Your task to perform on an android device: Show me the alarms in the clock app Image 0: 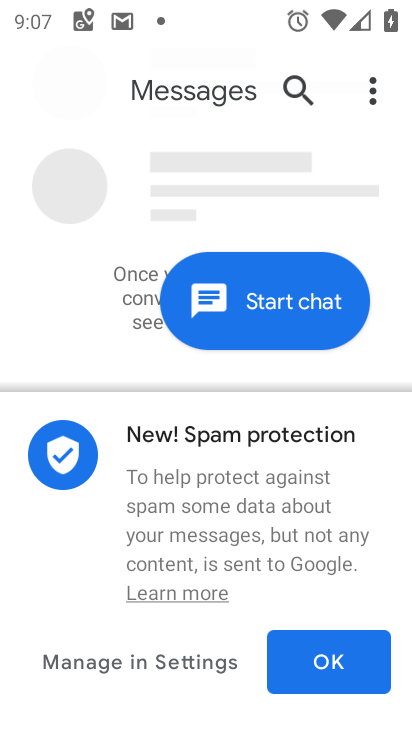
Step 0: press home button
Your task to perform on an android device: Show me the alarms in the clock app Image 1: 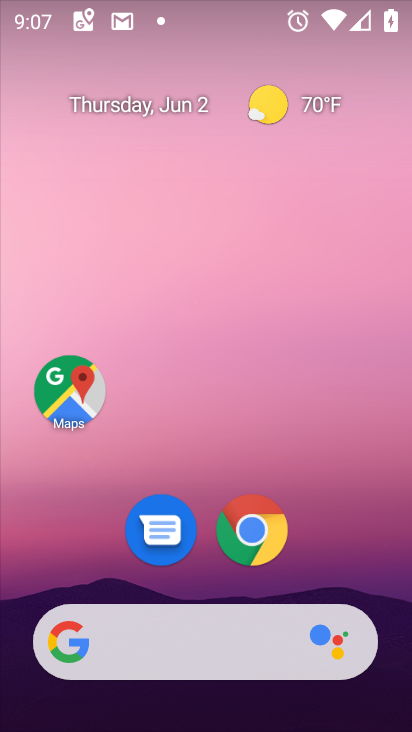
Step 1: drag from (142, 591) to (120, 328)
Your task to perform on an android device: Show me the alarms in the clock app Image 2: 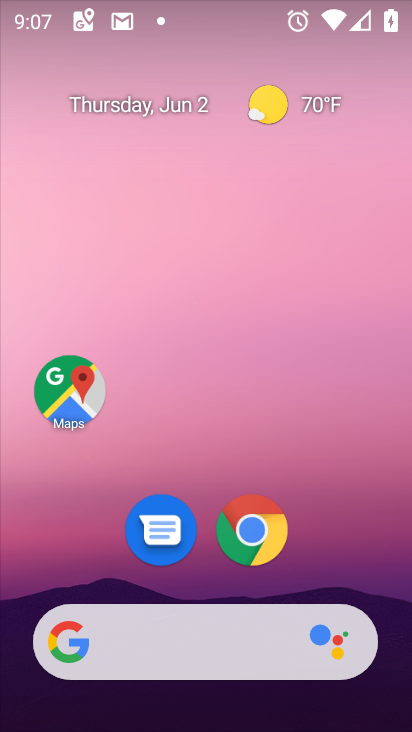
Step 2: drag from (203, 579) to (173, 311)
Your task to perform on an android device: Show me the alarms in the clock app Image 3: 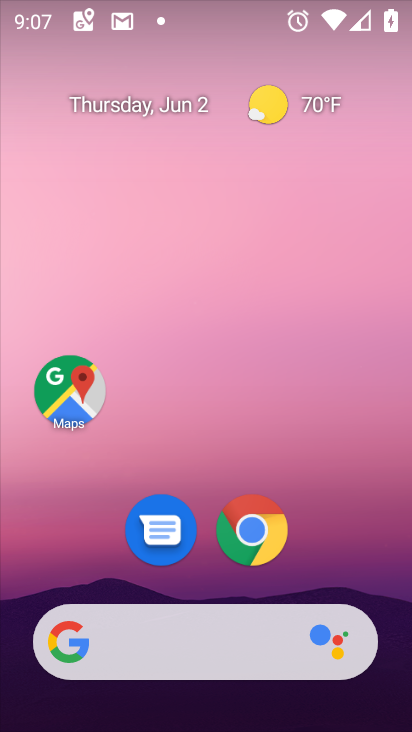
Step 3: drag from (194, 601) to (156, 87)
Your task to perform on an android device: Show me the alarms in the clock app Image 4: 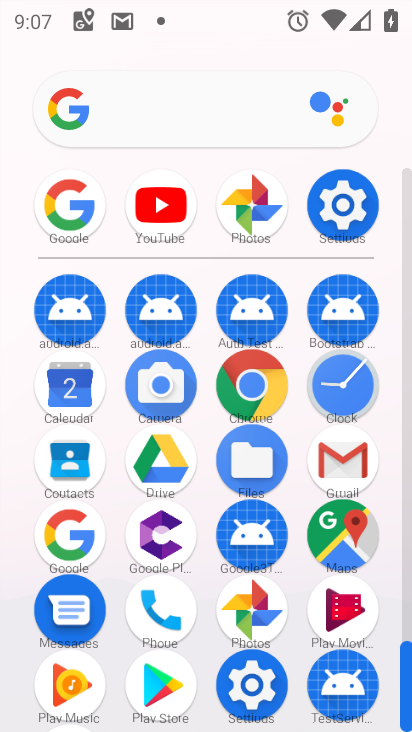
Step 4: click (321, 401)
Your task to perform on an android device: Show me the alarms in the clock app Image 5: 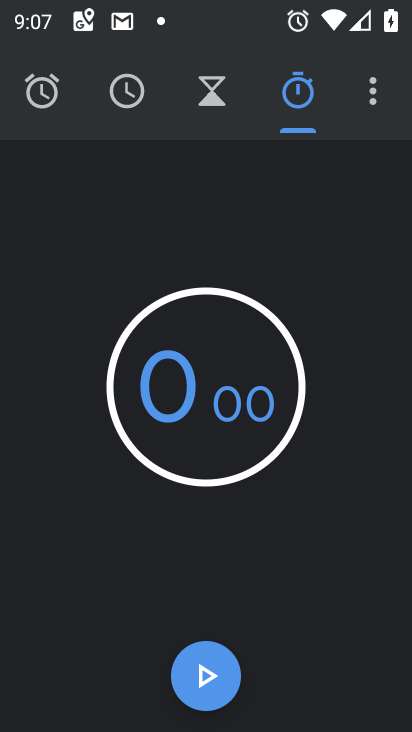
Step 5: click (53, 98)
Your task to perform on an android device: Show me the alarms in the clock app Image 6: 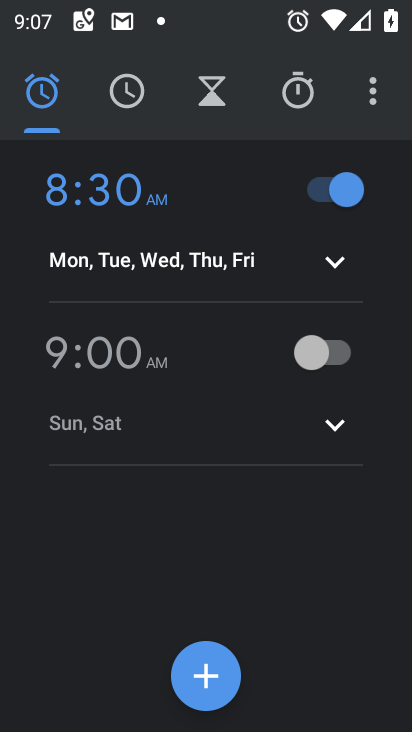
Step 6: task complete